Your task to perform on an android device: turn off location Image 0: 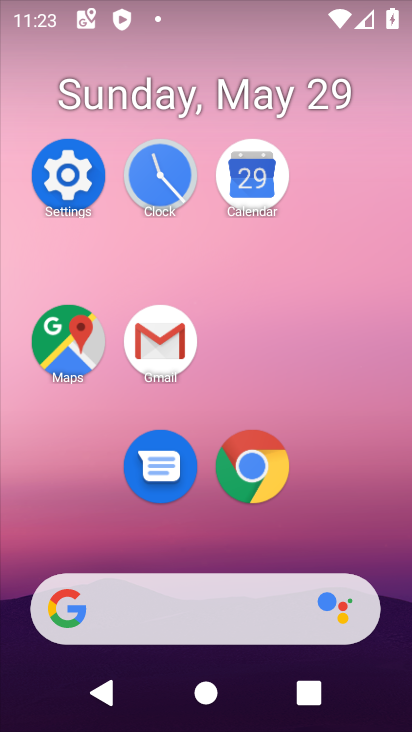
Step 0: click (62, 199)
Your task to perform on an android device: turn off location Image 1: 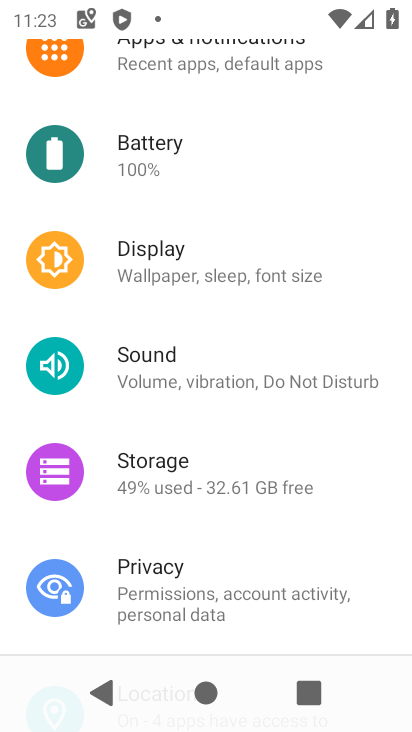
Step 1: drag from (252, 570) to (221, 190)
Your task to perform on an android device: turn off location Image 2: 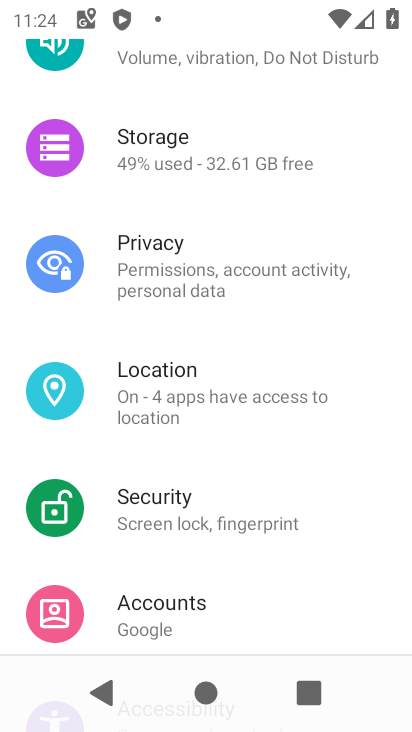
Step 2: click (230, 404)
Your task to perform on an android device: turn off location Image 3: 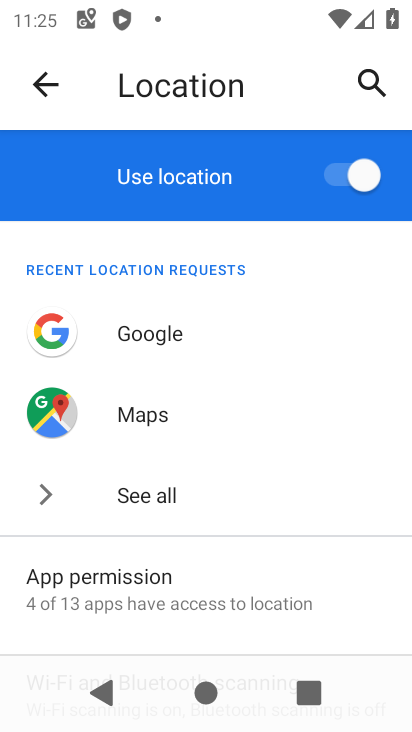
Step 3: click (376, 178)
Your task to perform on an android device: turn off location Image 4: 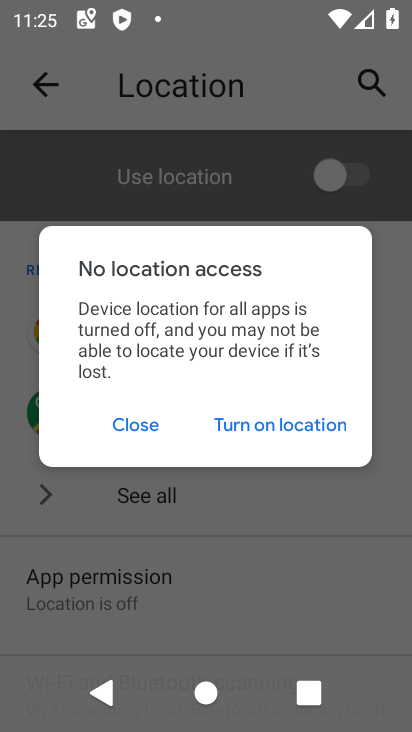
Step 4: click (136, 427)
Your task to perform on an android device: turn off location Image 5: 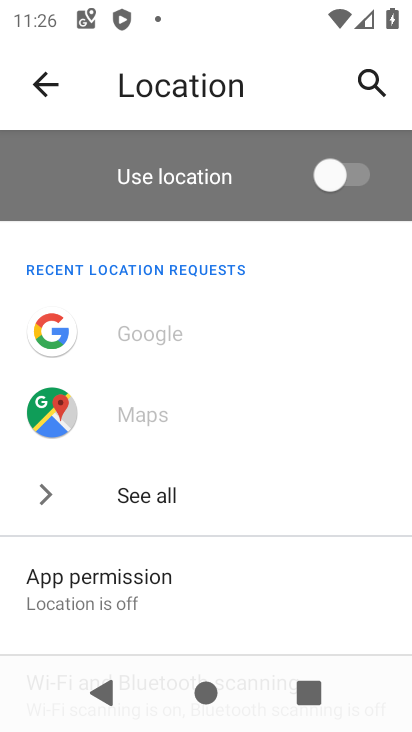
Step 5: task complete